Your task to perform on an android device: turn on translation in the chrome app Image 0: 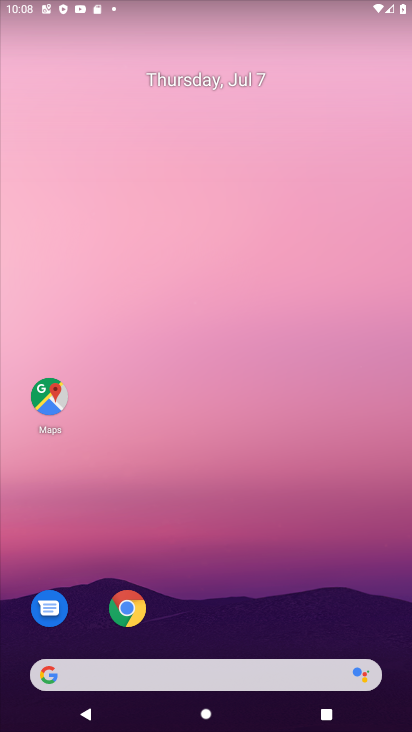
Step 0: click (127, 606)
Your task to perform on an android device: turn on translation in the chrome app Image 1: 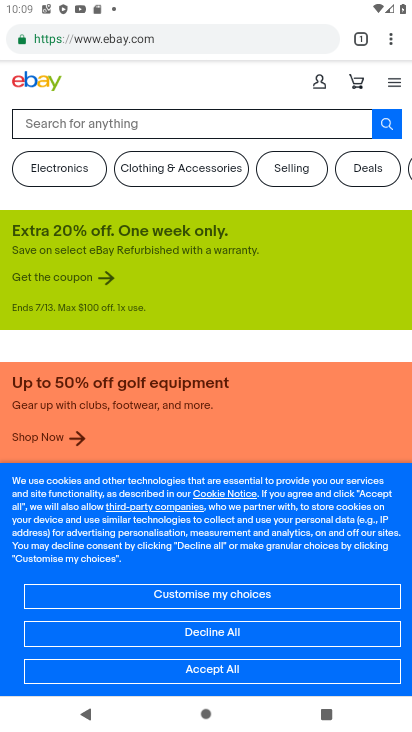
Step 1: click (387, 37)
Your task to perform on an android device: turn on translation in the chrome app Image 2: 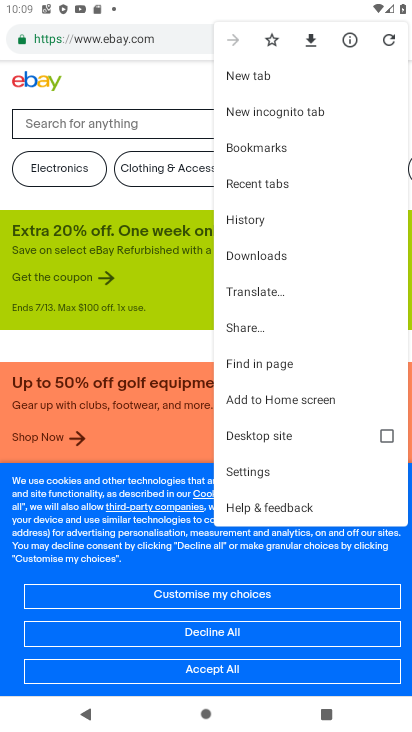
Step 2: click (259, 473)
Your task to perform on an android device: turn on translation in the chrome app Image 3: 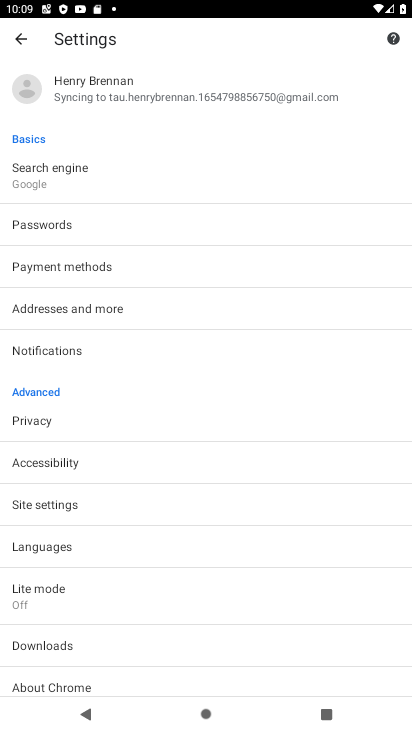
Step 3: click (62, 510)
Your task to perform on an android device: turn on translation in the chrome app Image 4: 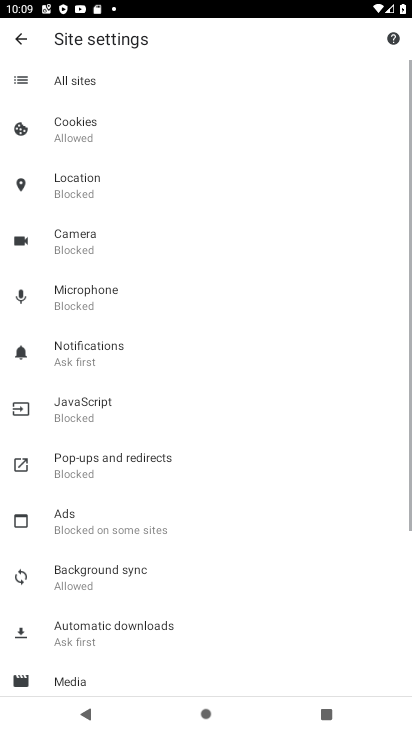
Step 4: task complete